Your task to perform on an android device: toggle translation in the chrome app Image 0: 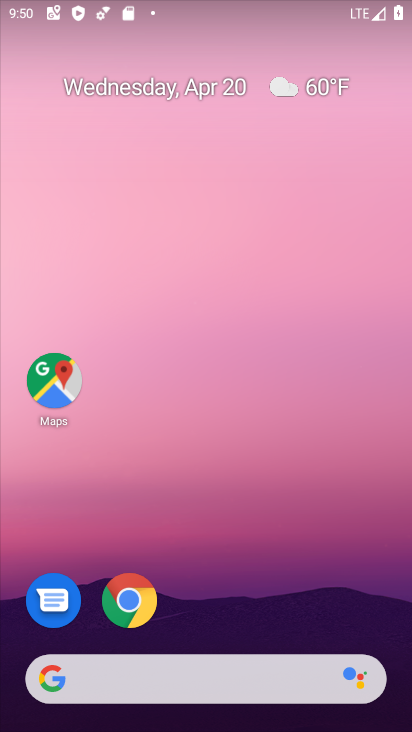
Step 0: click (131, 609)
Your task to perform on an android device: toggle translation in the chrome app Image 1: 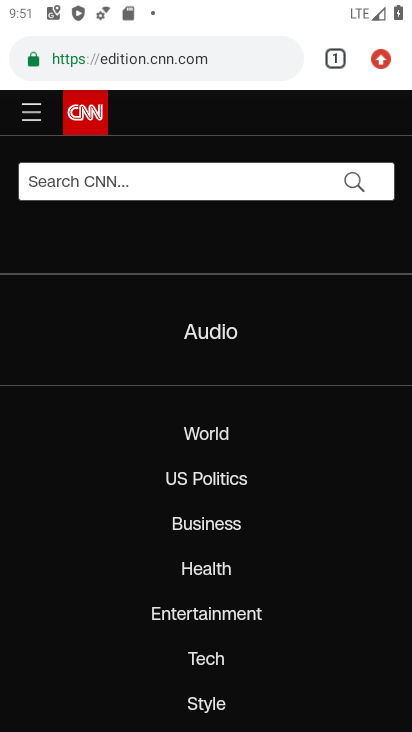
Step 1: click (372, 66)
Your task to perform on an android device: toggle translation in the chrome app Image 2: 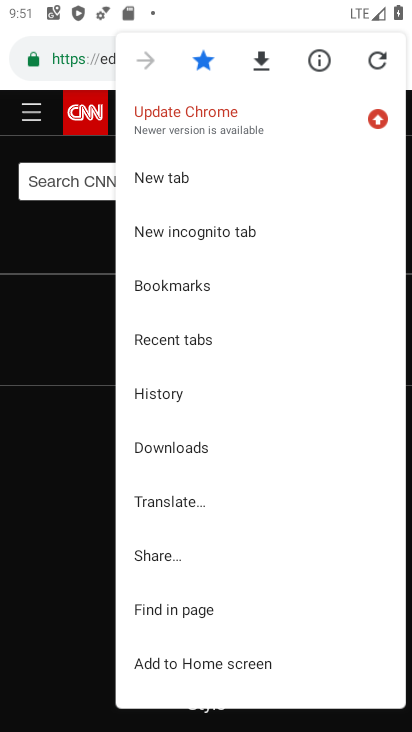
Step 2: drag from (186, 640) to (187, 247)
Your task to perform on an android device: toggle translation in the chrome app Image 3: 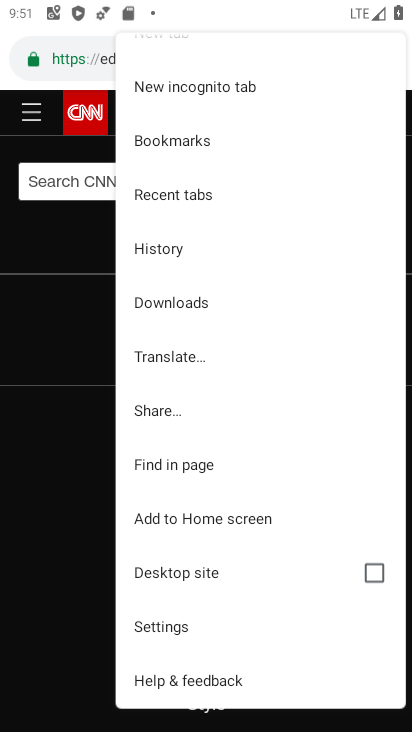
Step 3: click (207, 639)
Your task to perform on an android device: toggle translation in the chrome app Image 4: 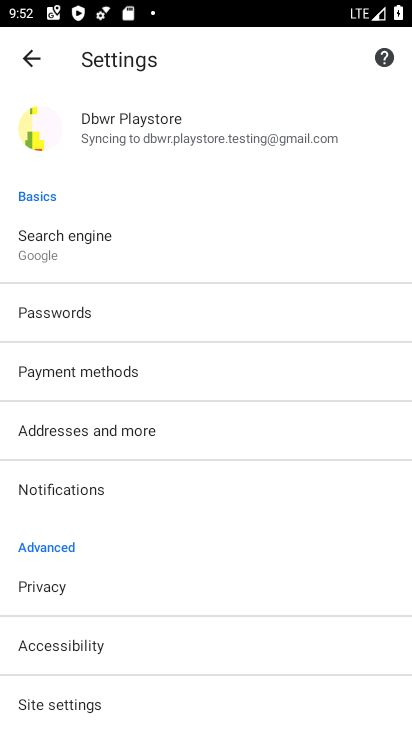
Step 4: drag from (138, 668) to (123, 218)
Your task to perform on an android device: toggle translation in the chrome app Image 5: 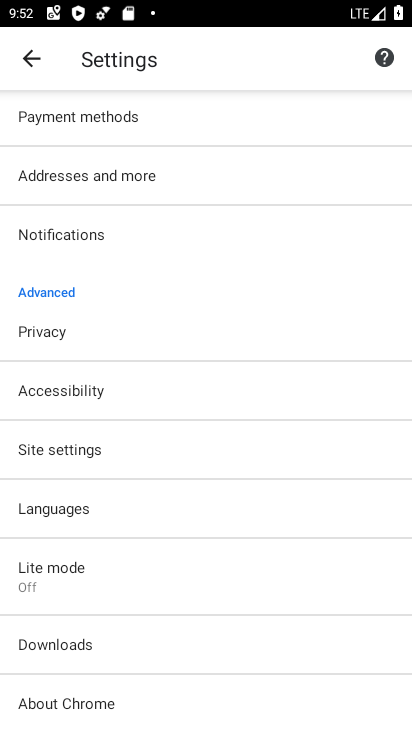
Step 5: click (169, 517)
Your task to perform on an android device: toggle translation in the chrome app Image 6: 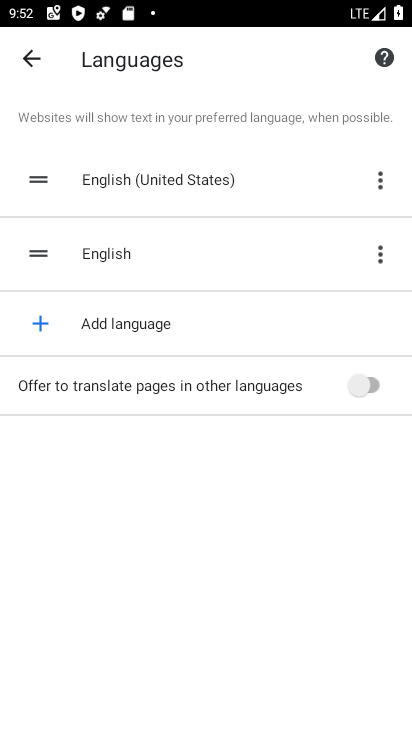
Step 6: click (371, 387)
Your task to perform on an android device: toggle translation in the chrome app Image 7: 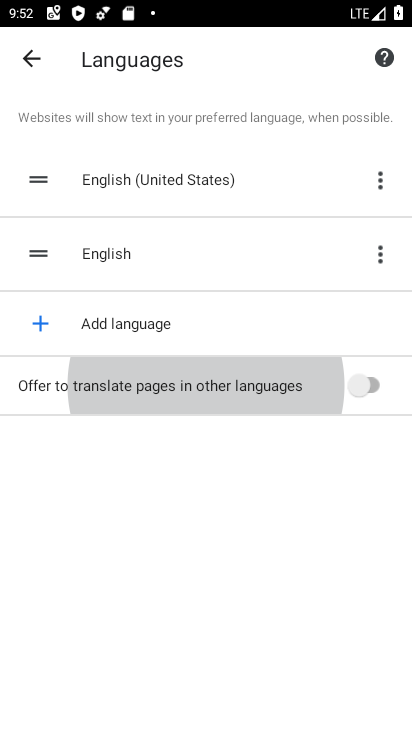
Step 7: click (371, 387)
Your task to perform on an android device: toggle translation in the chrome app Image 8: 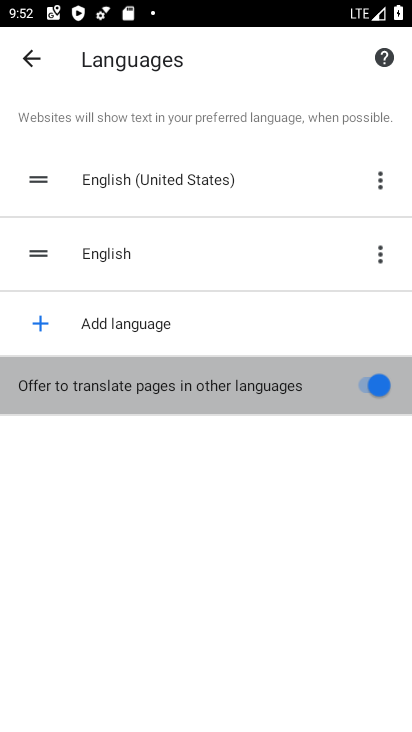
Step 8: click (371, 387)
Your task to perform on an android device: toggle translation in the chrome app Image 9: 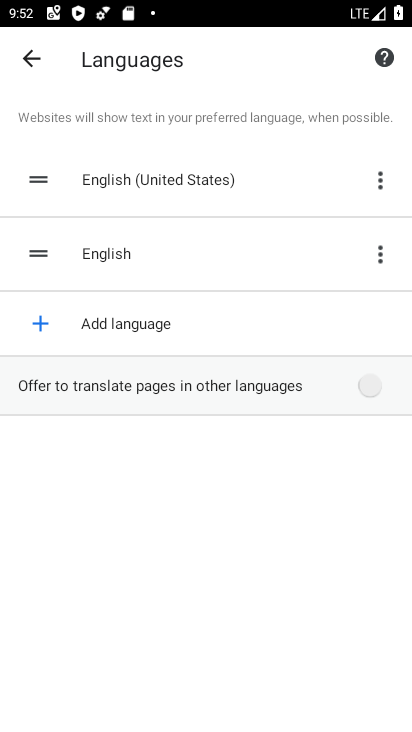
Step 9: click (371, 387)
Your task to perform on an android device: toggle translation in the chrome app Image 10: 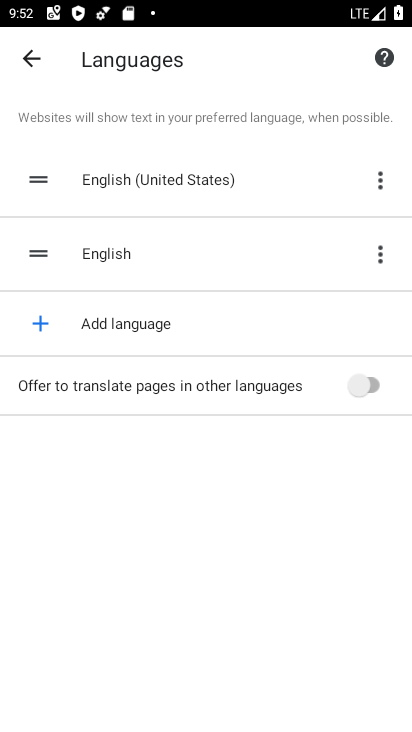
Step 10: task complete